Your task to perform on an android device: Show me recent news Image 0: 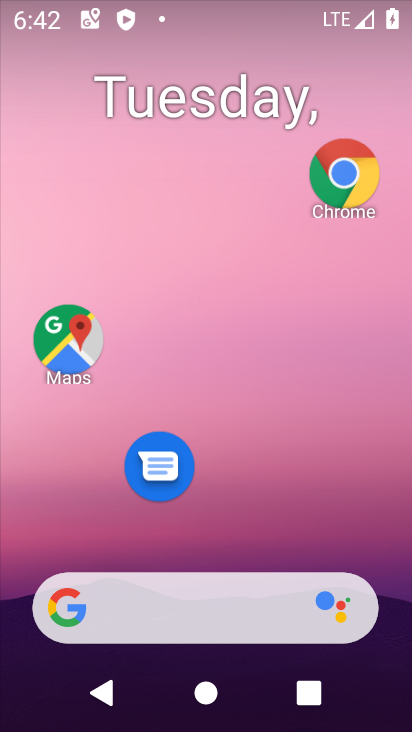
Step 0: click (348, 181)
Your task to perform on an android device: Show me recent news Image 1: 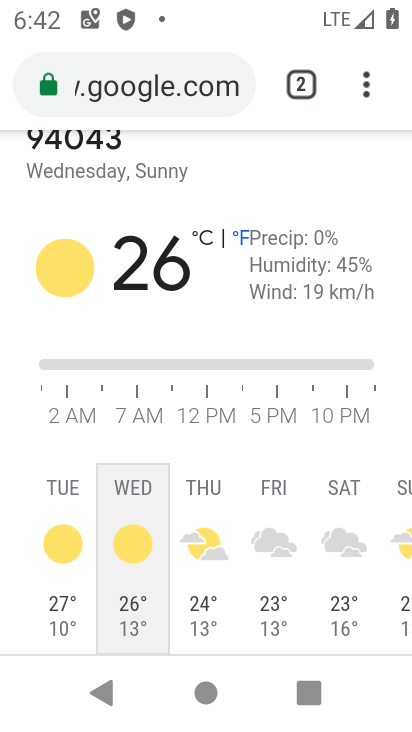
Step 1: click (124, 69)
Your task to perform on an android device: Show me recent news Image 2: 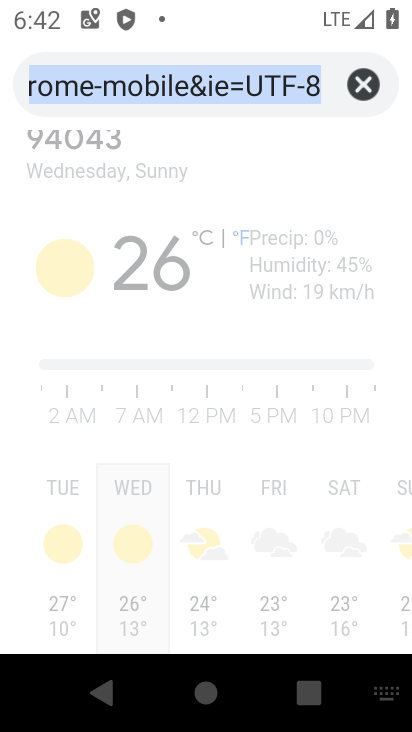
Step 2: click (362, 82)
Your task to perform on an android device: Show me recent news Image 3: 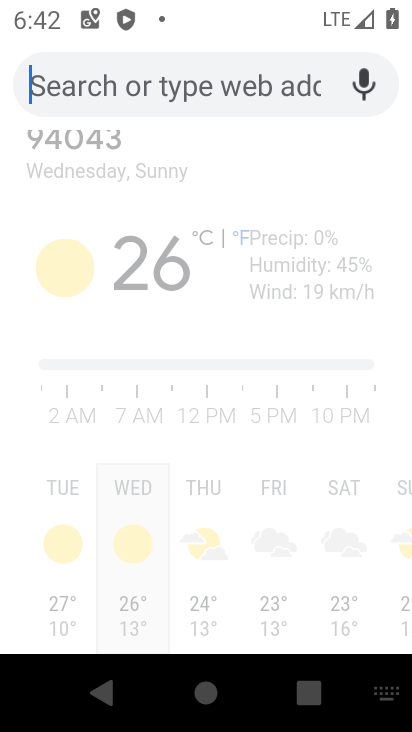
Step 3: type "Show me recent news"
Your task to perform on an android device: Show me recent news Image 4: 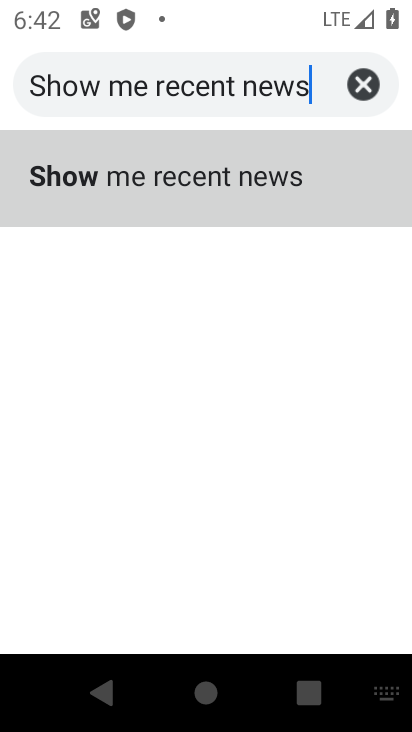
Step 4: click (97, 134)
Your task to perform on an android device: Show me recent news Image 5: 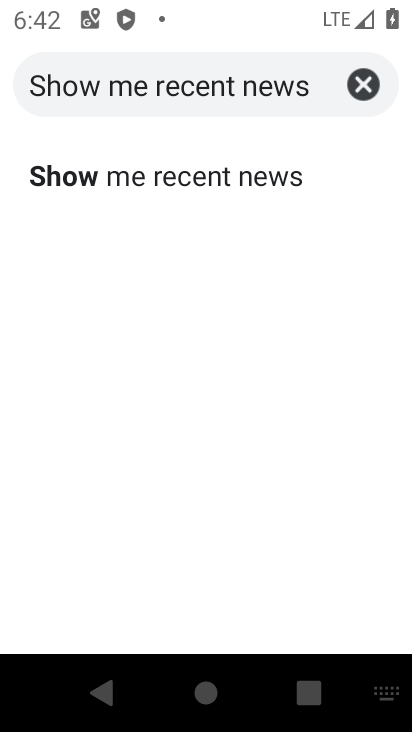
Step 5: click (281, 191)
Your task to perform on an android device: Show me recent news Image 6: 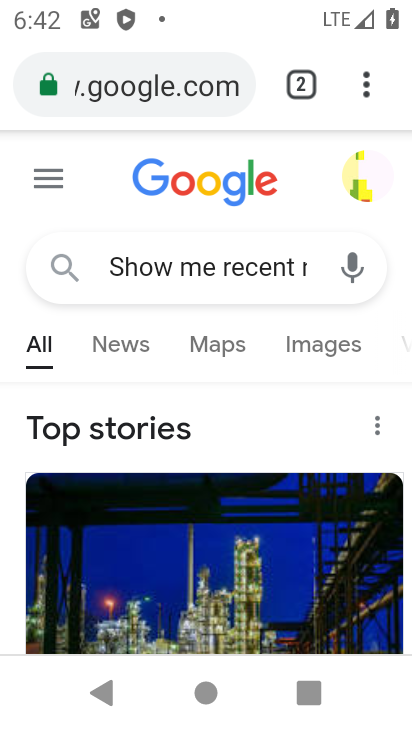
Step 6: task complete